Your task to perform on an android device: Open my contact list Image 0: 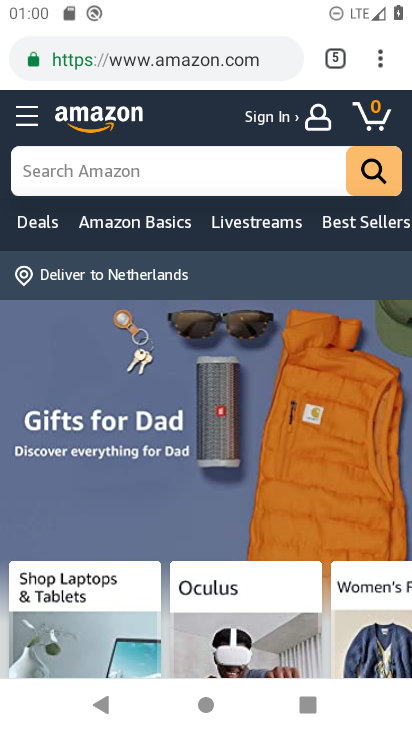
Step 0: press home button
Your task to perform on an android device: Open my contact list Image 1: 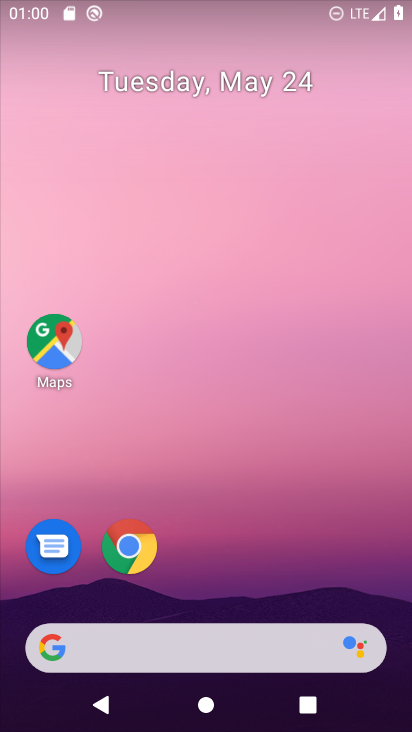
Step 1: drag from (254, 647) to (265, 121)
Your task to perform on an android device: Open my contact list Image 2: 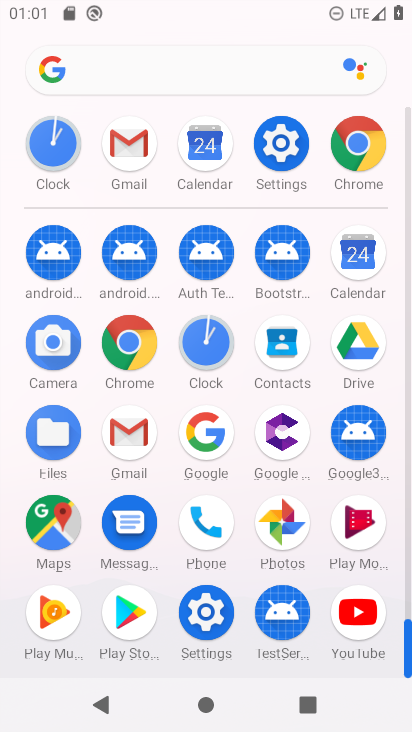
Step 2: click (268, 346)
Your task to perform on an android device: Open my contact list Image 3: 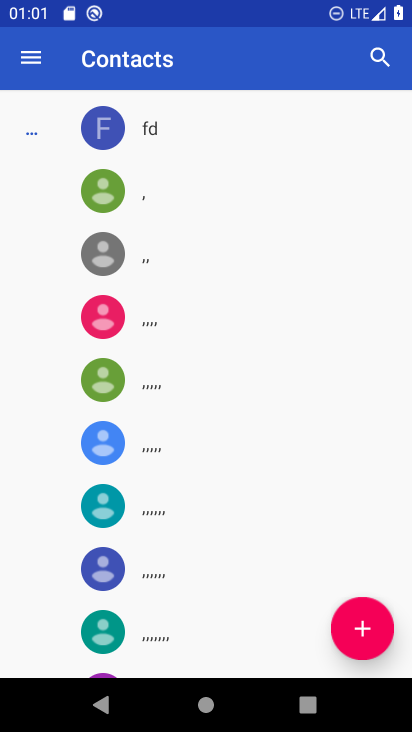
Step 3: task complete